Your task to perform on an android device: change alarm snooze length Image 0: 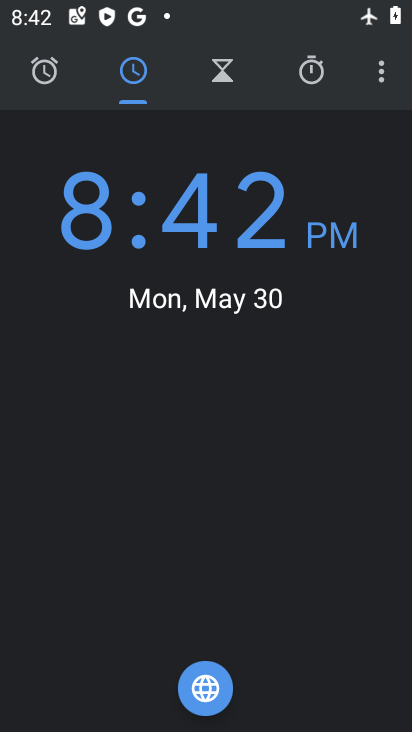
Step 0: press home button
Your task to perform on an android device: change alarm snooze length Image 1: 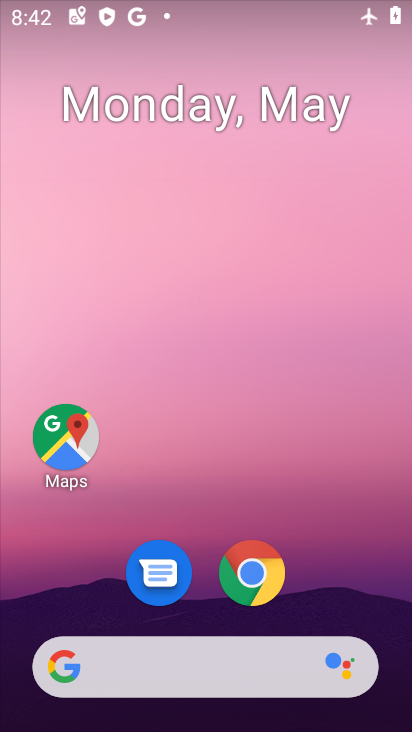
Step 1: drag from (217, 628) to (287, 163)
Your task to perform on an android device: change alarm snooze length Image 2: 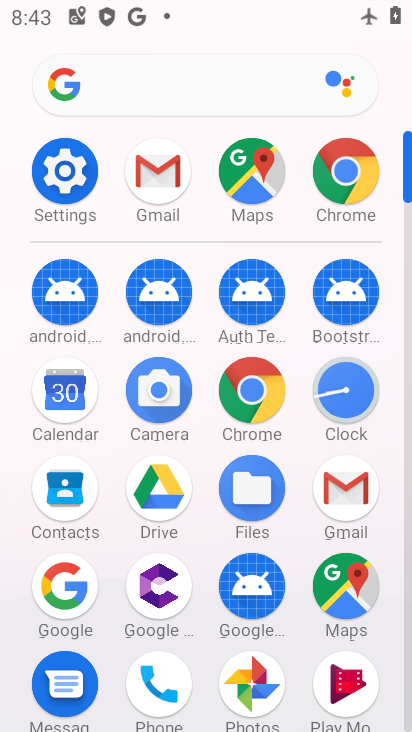
Step 2: click (349, 400)
Your task to perform on an android device: change alarm snooze length Image 3: 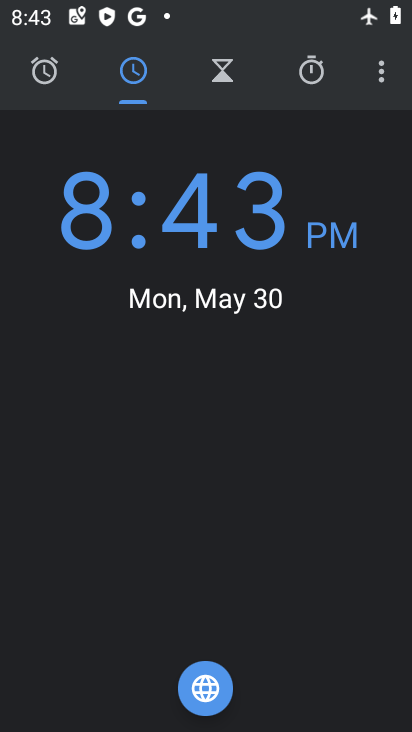
Step 3: click (384, 82)
Your task to perform on an android device: change alarm snooze length Image 4: 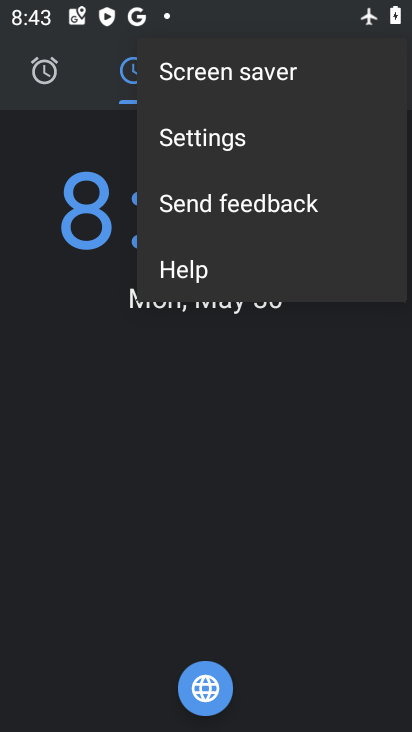
Step 4: click (209, 146)
Your task to perform on an android device: change alarm snooze length Image 5: 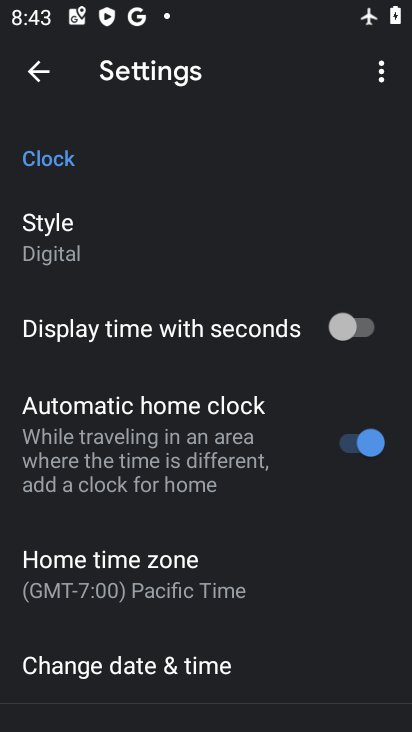
Step 5: drag from (121, 598) to (189, 191)
Your task to perform on an android device: change alarm snooze length Image 6: 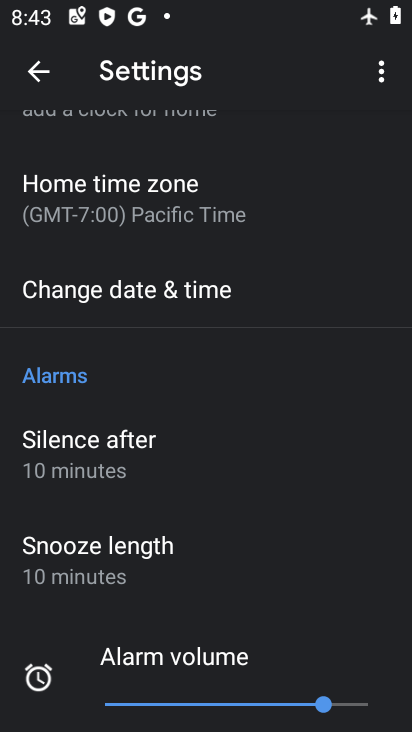
Step 6: click (147, 556)
Your task to perform on an android device: change alarm snooze length Image 7: 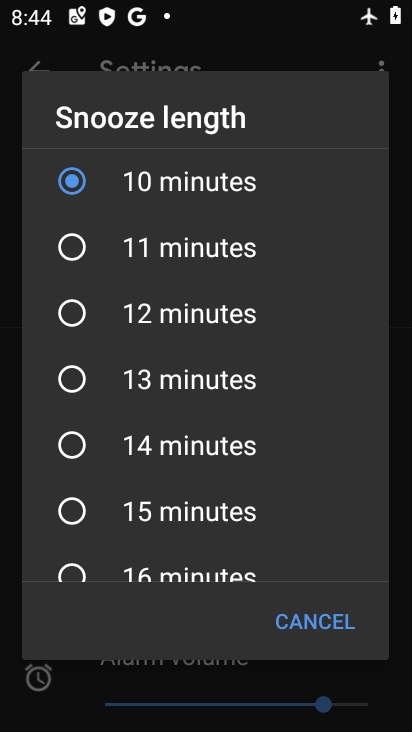
Step 7: click (91, 317)
Your task to perform on an android device: change alarm snooze length Image 8: 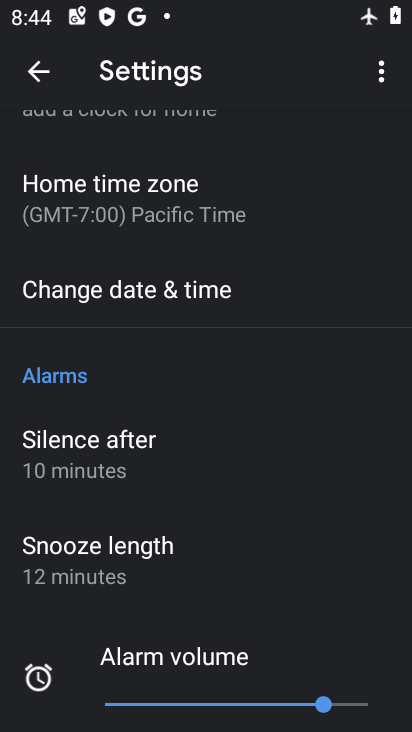
Step 8: task complete